Your task to perform on an android device: Open location settings Image 0: 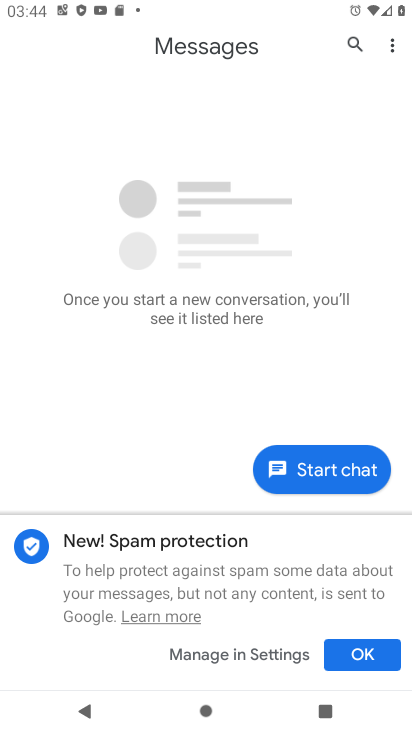
Step 0: press home button
Your task to perform on an android device: Open location settings Image 1: 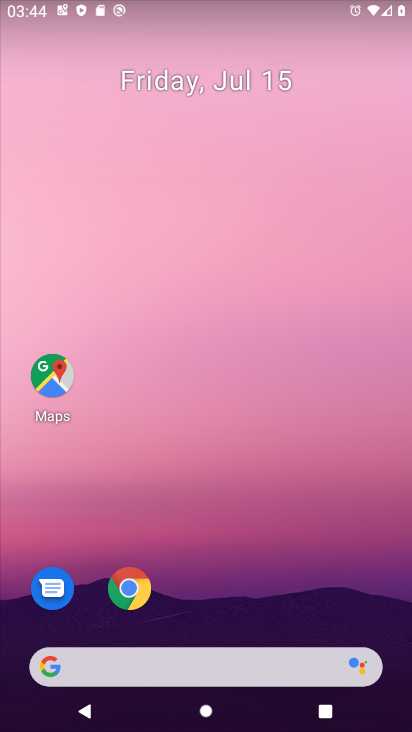
Step 1: drag from (185, 658) to (206, 189)
Your task to perform on an android device: Open location settings Image 2: 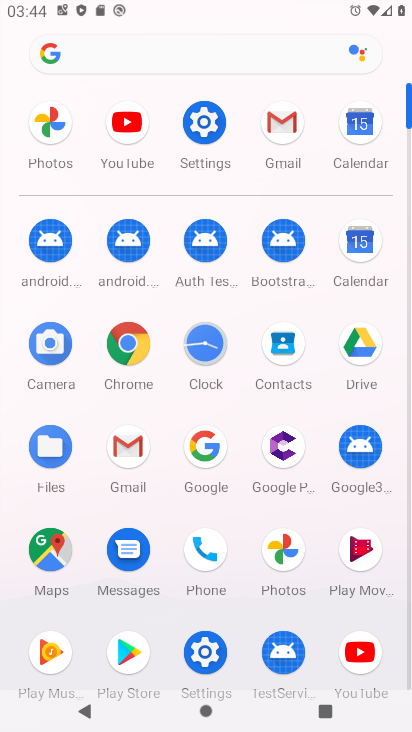
Step 2: click (203, 122)
Your task to perform on an android device: Open location settings Image 3: 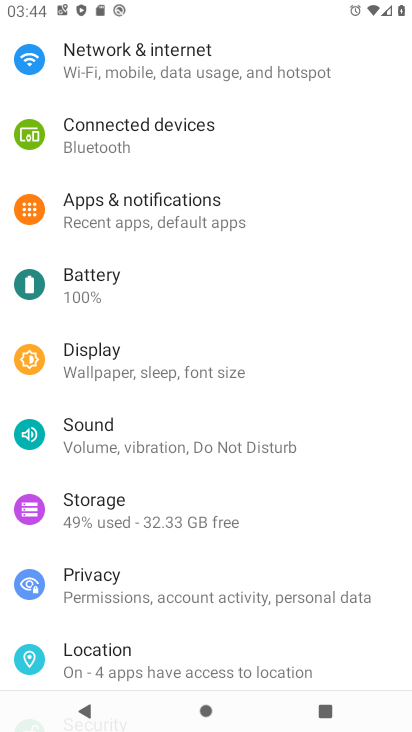
Step 3: click (109, 663)
Your task to perform on an android device: Open location settings Image 4: 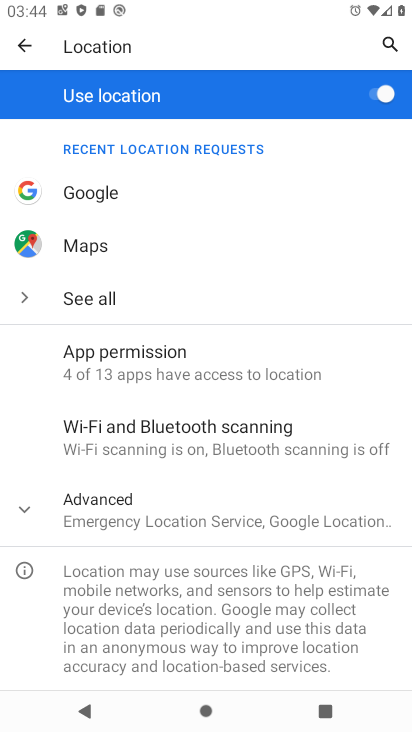
Step 4: task complete